Your task to perform on an android device: Add "bose soundsport free" to the cart on costco.com Image 0: 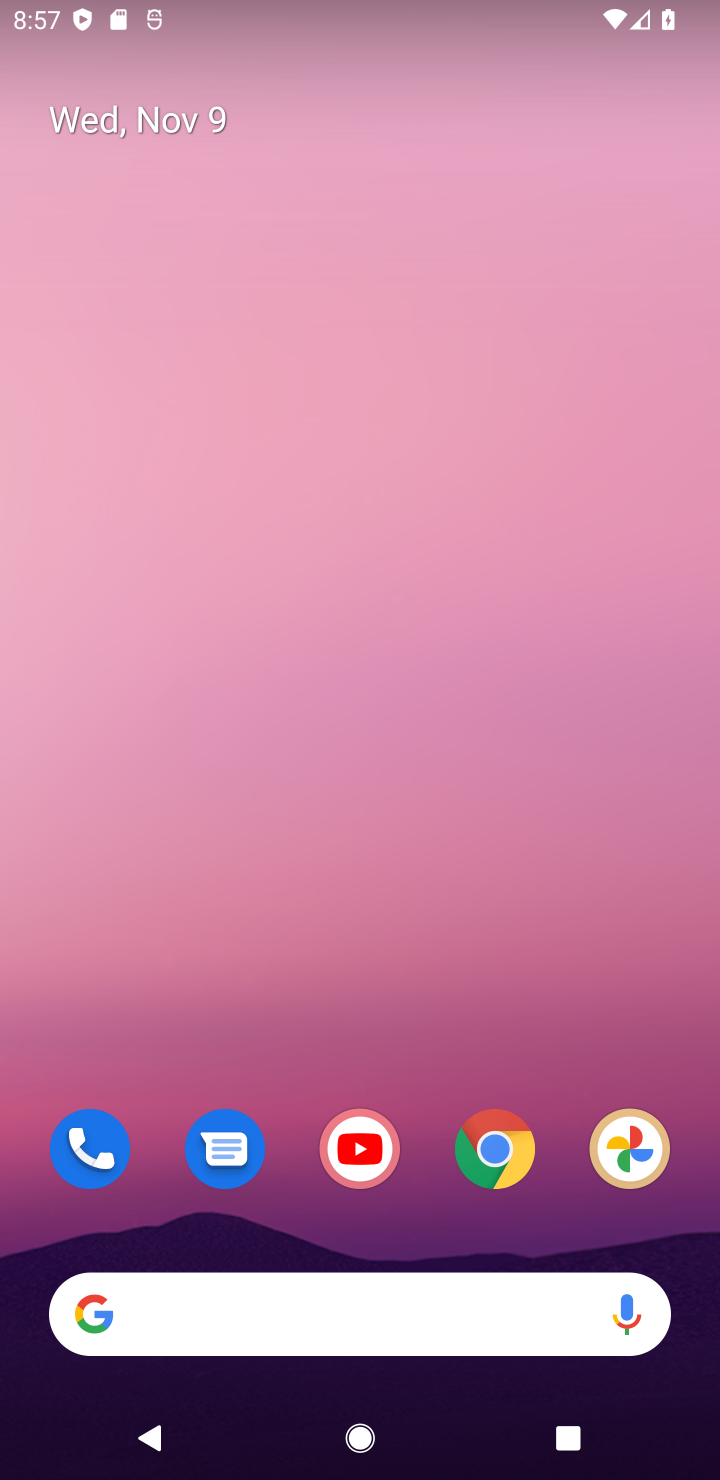
Step 0: click (483, 1157)
Your task to perform on an android device: Add "bose soundsport free" to the cart on costco.com Image 1: 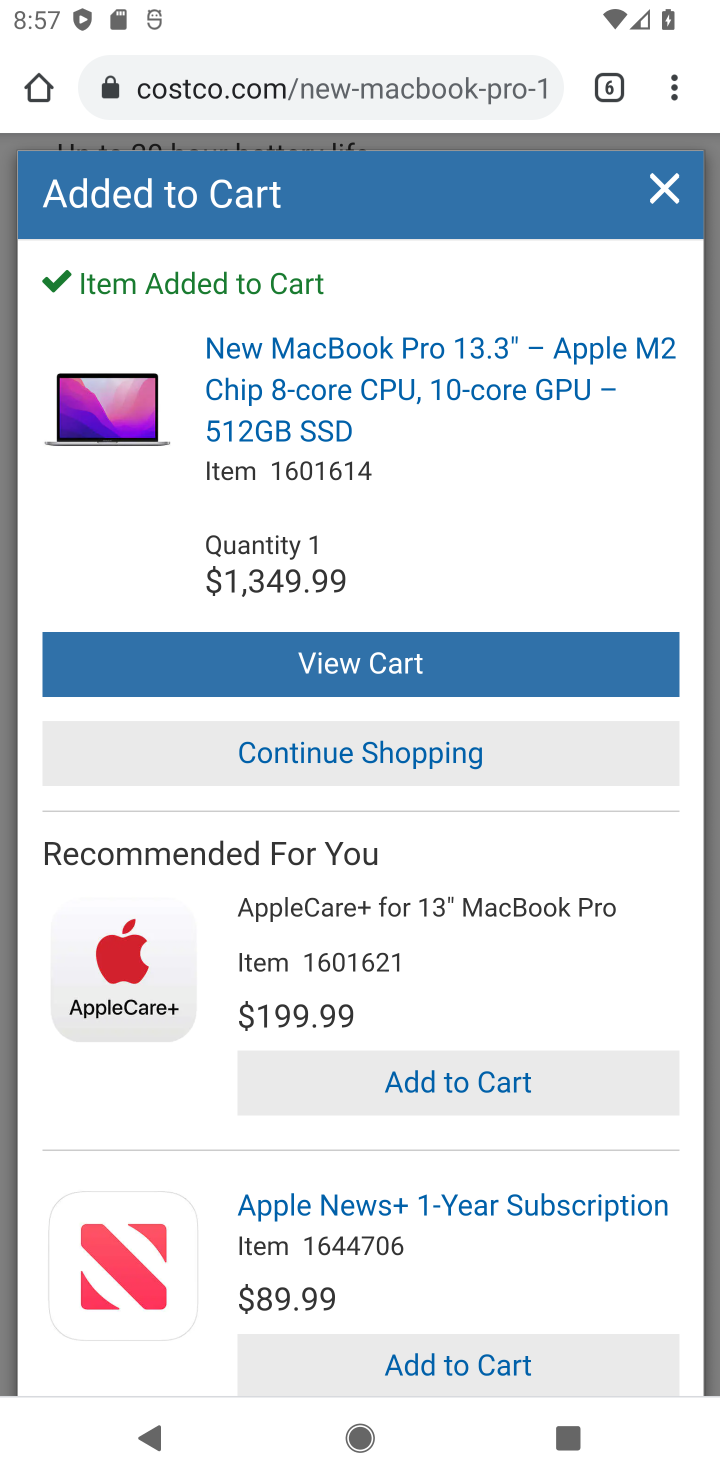
Step 1: click (647, 179)
Your task to perform on an android device: Add "bose soundsport free" to the cart on costco.com Image 2: 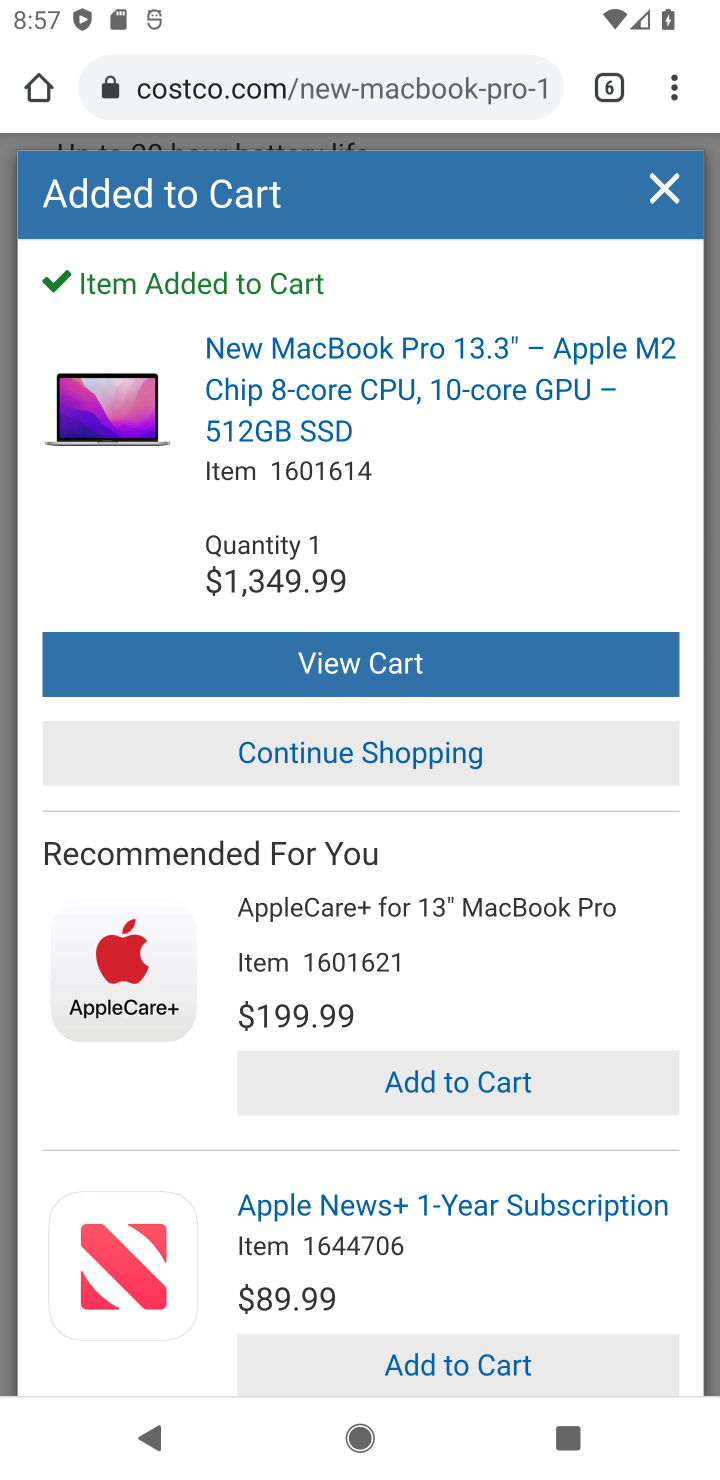
Step 2: click (669, 189)
Your task to perform on an android device: Add "bose soundsport free" to the cart on costco.com Image 3: 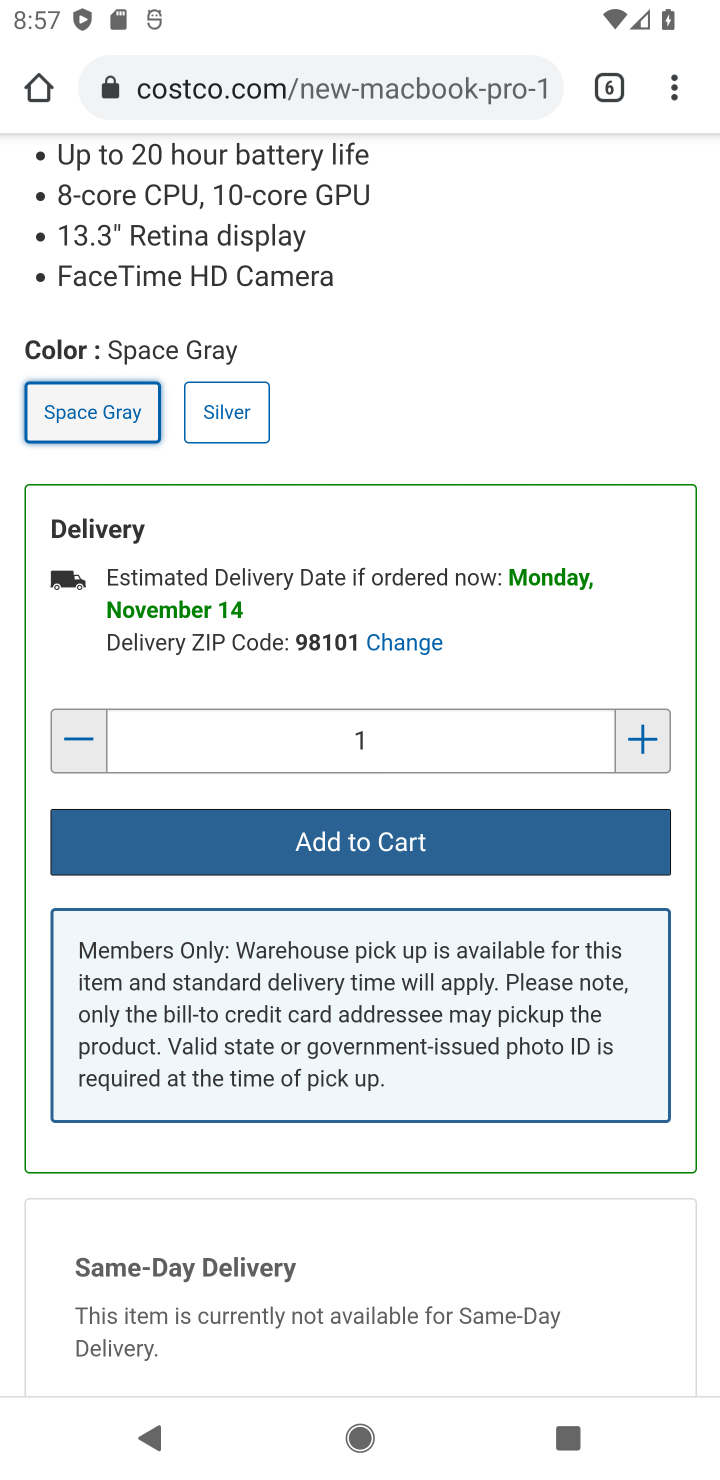
Step 3: drag from (400, 218) to (226, 1378)
Your task to perform on an android device: Add "bose soundsport free" to the cart on costco.com Image 4: 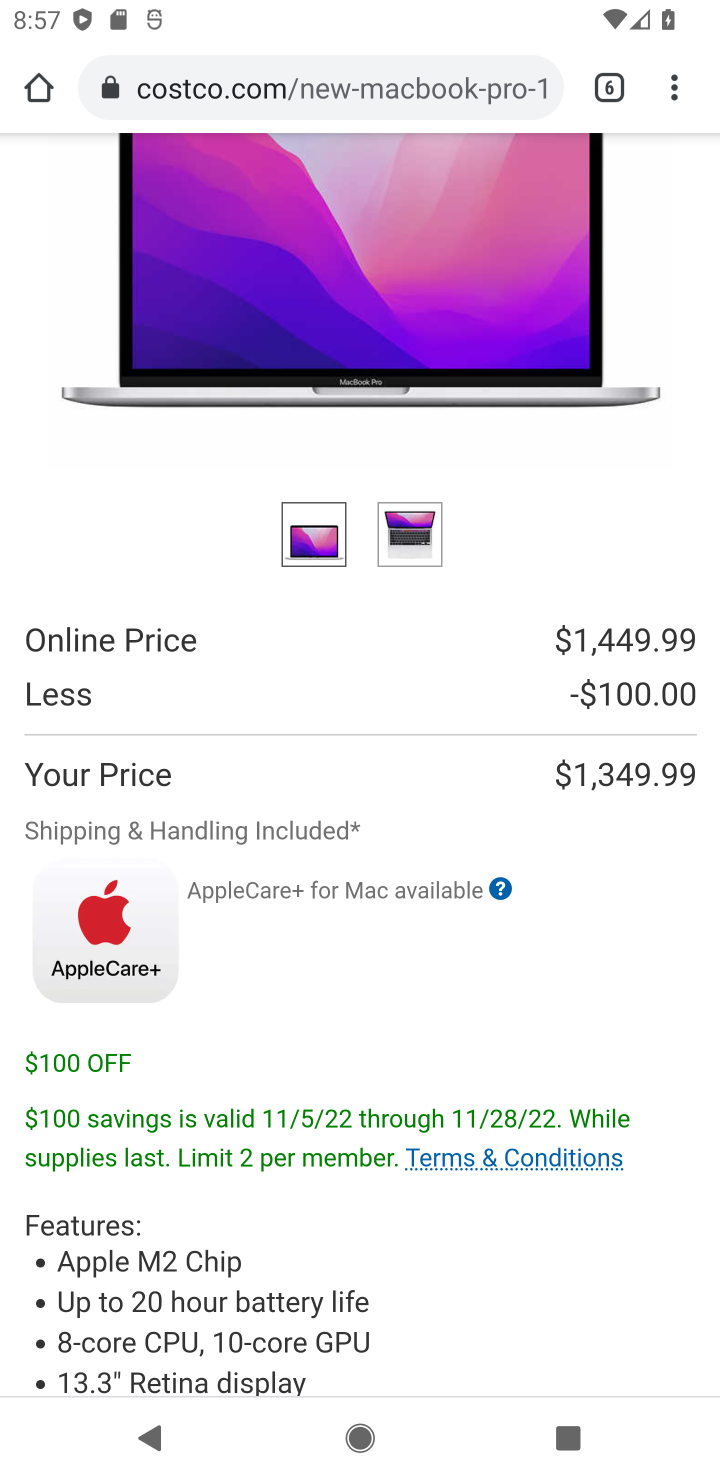
Step 4: drag from (544, 541) to (365, 1471)
Your task to perform on an android device: Add "bose soundsport free" to the cart on costco.com Image 5: 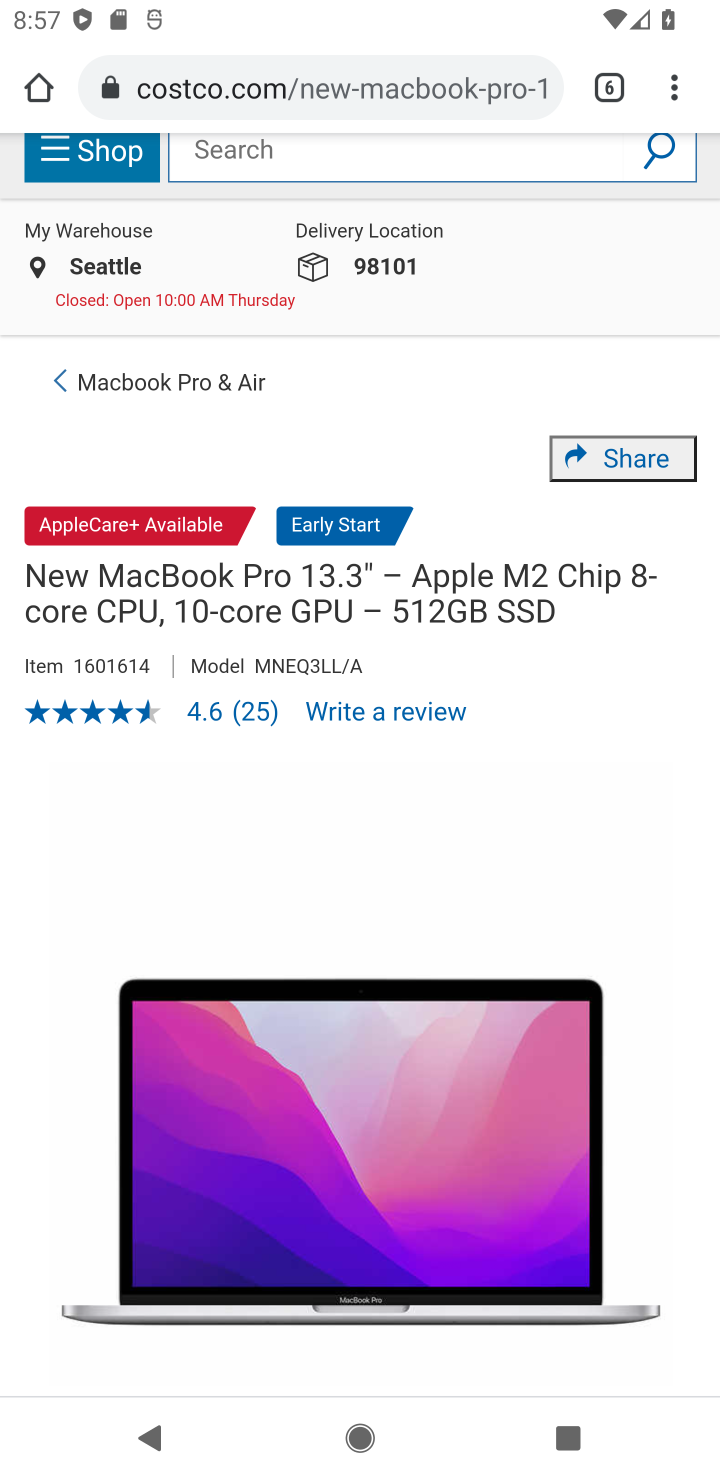
Step 5: click (276, 147)
Your task to perform on an android device: Add "bose soundsport free" to the cart on costco.com Image 6: 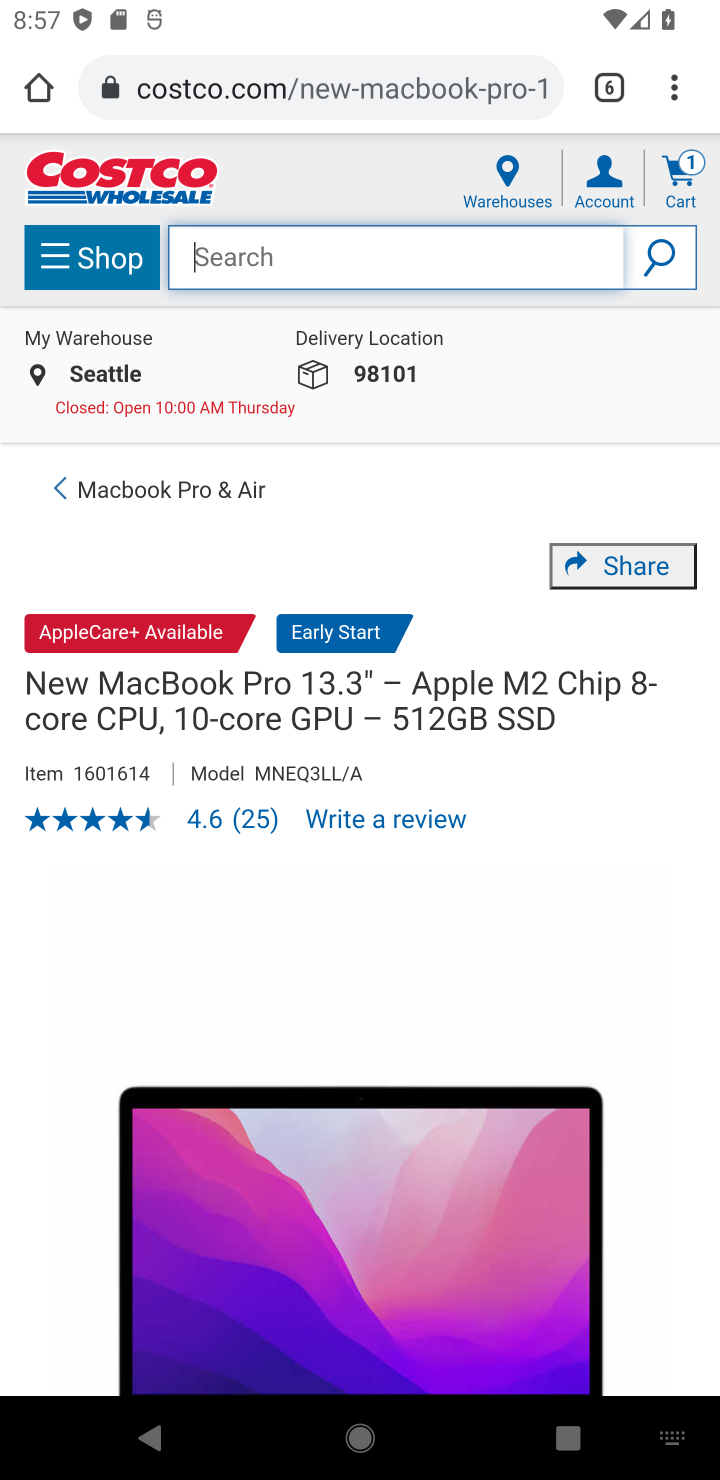
Step 6: type "bose soundsport free"
Your task to perform on an android device: Add "bose soundsport free" to the cart on costco.com Image 7: 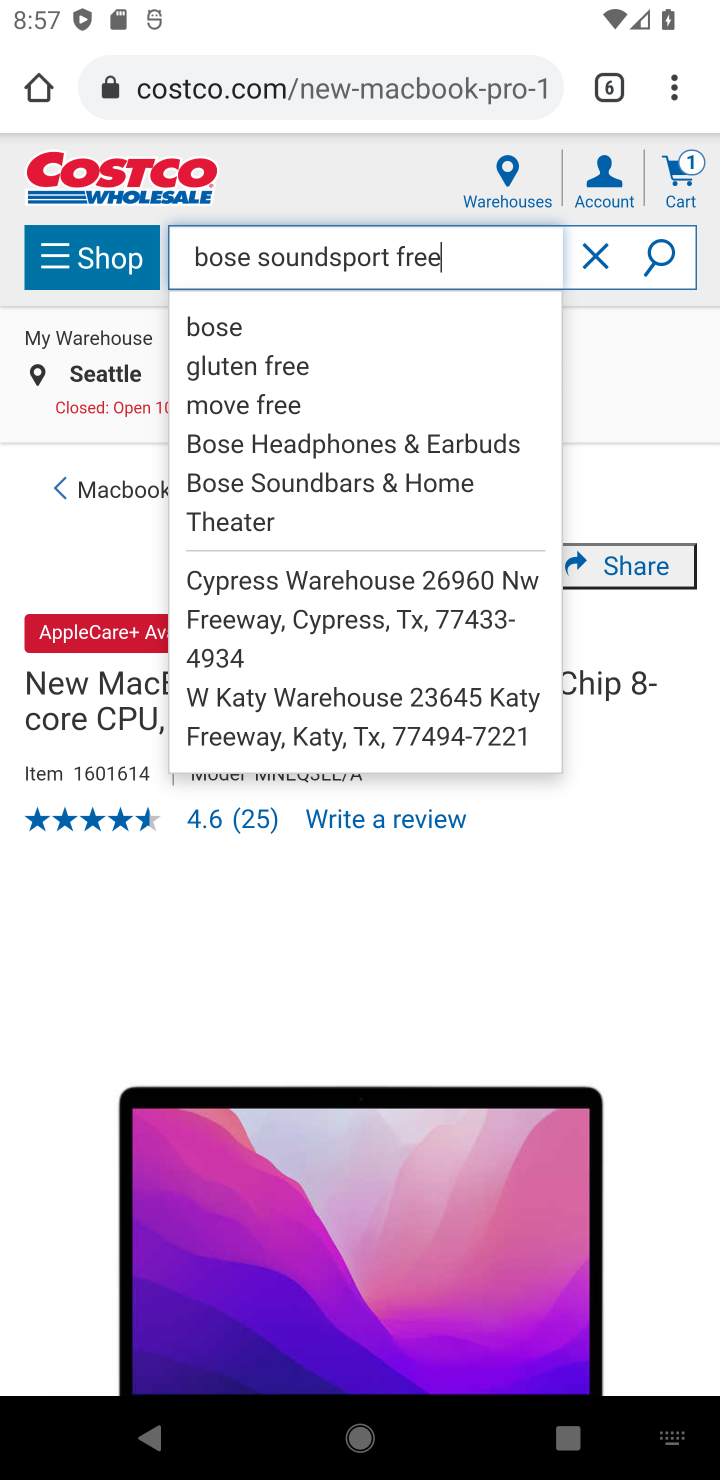
Step 7: click (657, 234)
Your task to perform on an android device: Add "bose soundsport free" to the cart on costco.com Image 8: 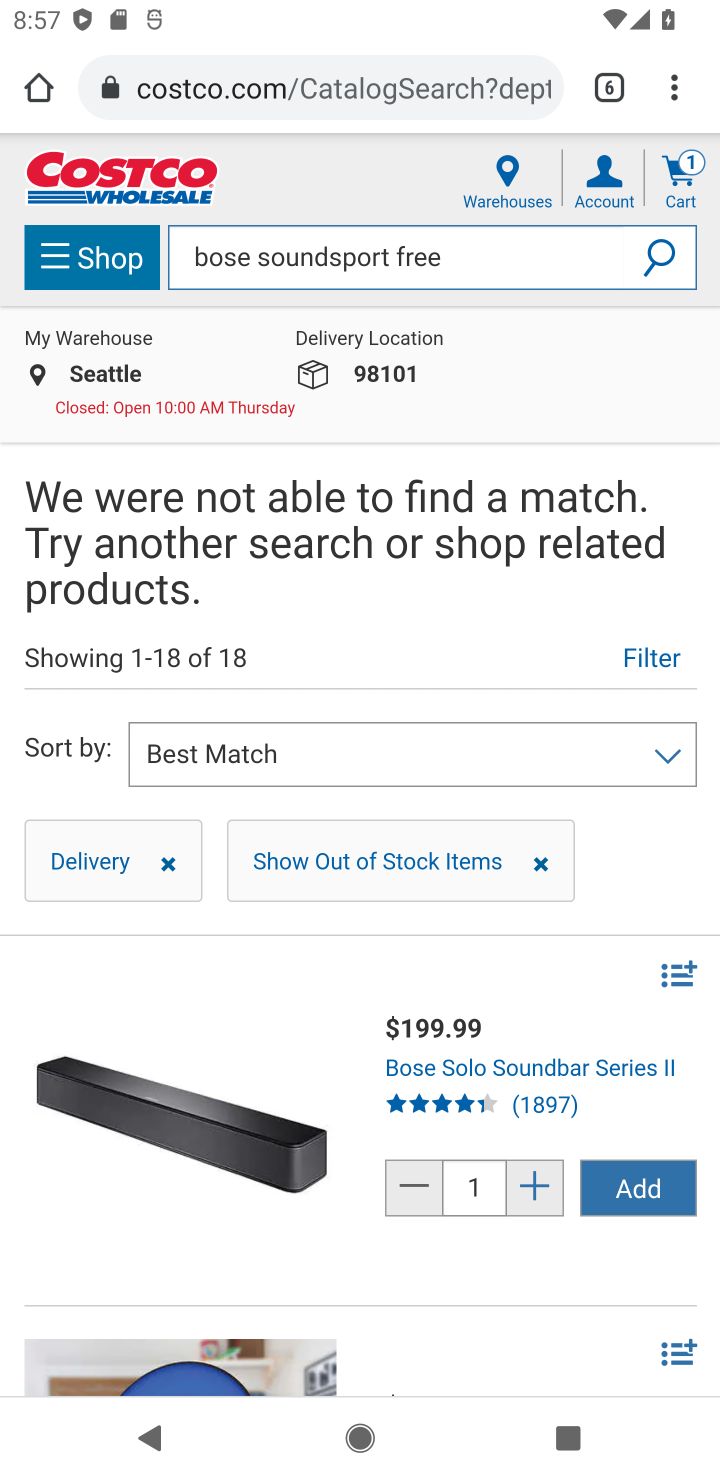
Step 8: click (637, 1206)
Your task to perform on an android device: Add "bose soundsport free" to the cart on costco.com Image 9: 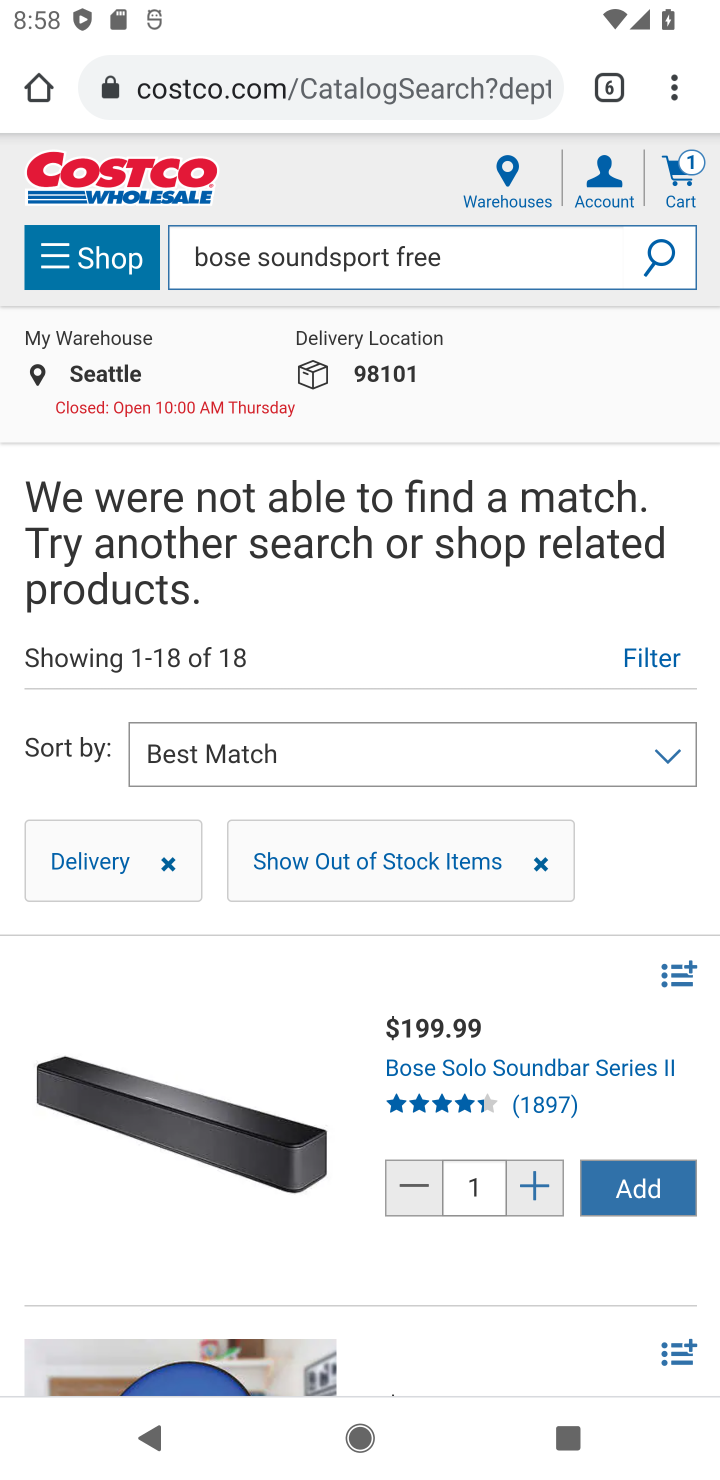
Step 9: task complete